Your task to perform on an android device: toggle airplane mode Image 0: 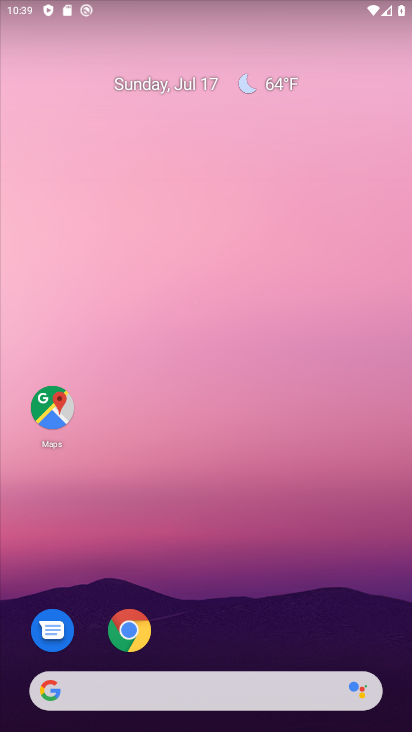
Step 0: drag from (347, 545) to (330, 121)
Your task to perform on an android device: toggle airplane mode Image 1: 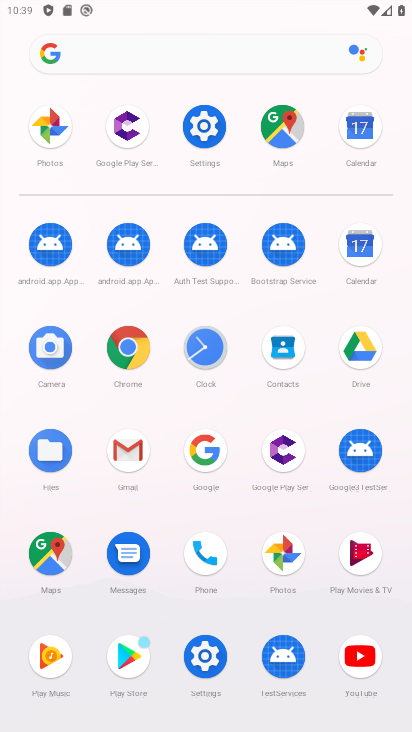
Step 1: click (206, 657)
Your task to perform on an android device: toggle airplane mode Image 2: 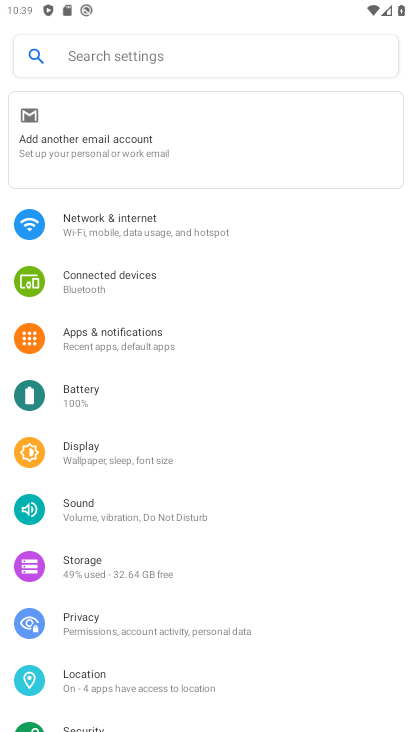
Step 2: click (102, 224)
Your task to perform on an android device: toggle airplane mode Image 3: 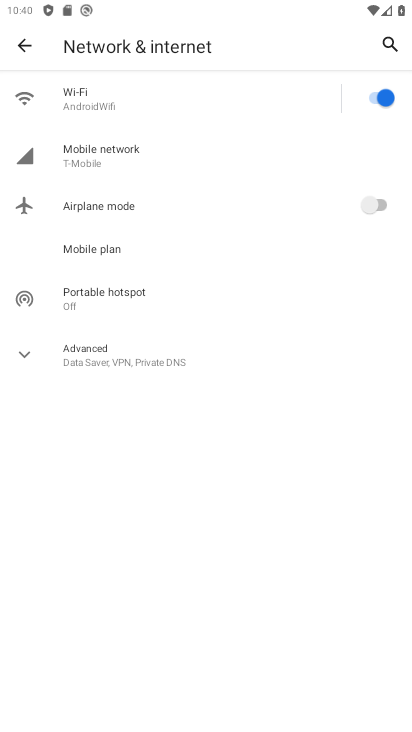
Step 3: click (381, 204)
Your task to perform on an android device: toggle airplane mode Image 4: 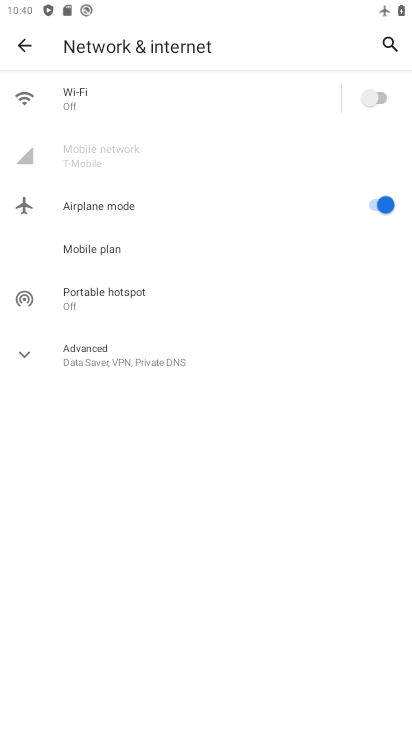
Step 4: task complete